Your task to perform on an android device: toggle translation in the chrome app Image 0: 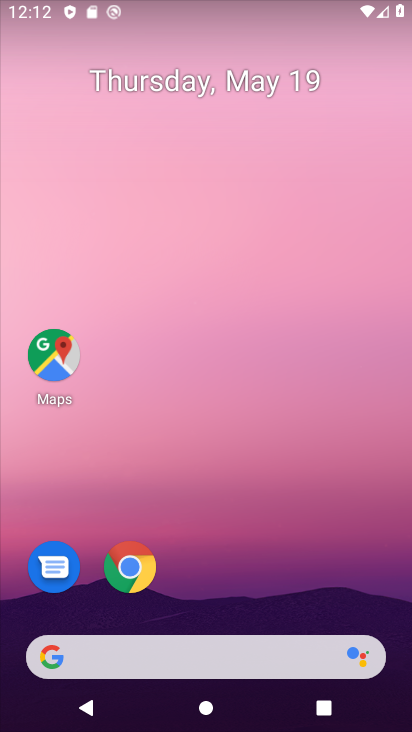
Step 0: click (137, 572)
Your task to perform on an android device: toggle translation in the chrome app Image 1: 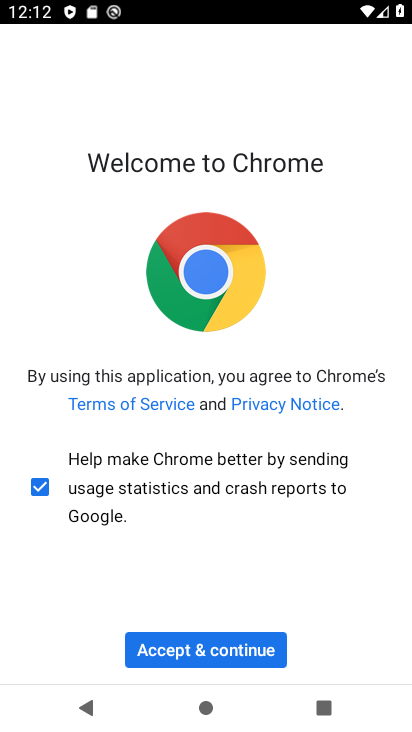
Step 1: click (248, 648)
Your task to perform on an android device: toggle translation in the chrome app Image 2: 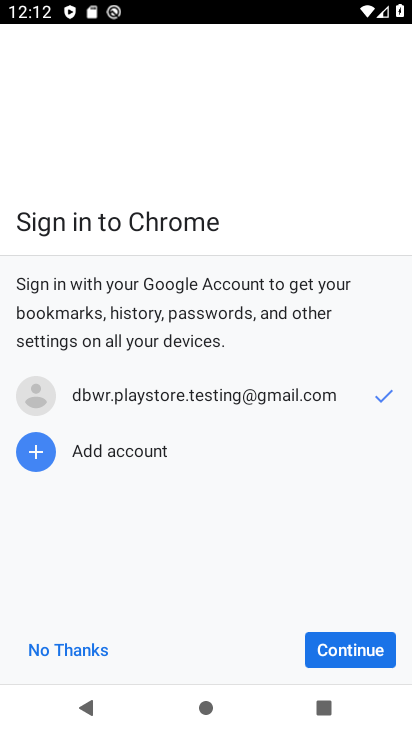
Step 2: click (352, 645)
Your task to perform on an android device: toggle translation in the chrome app Image 3: 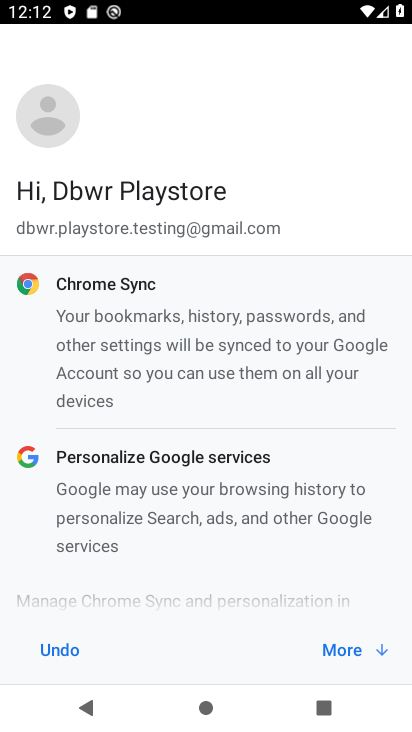
Step 3: click (352, 645)
Your task to perform on an android device: toggle translation in the chrome app Image 4: 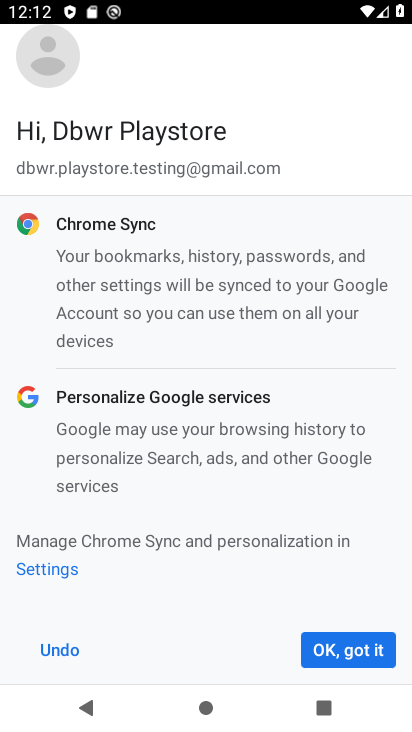
Step 4: click (352, 645)
Your task to perform on an android device: toggle translation in the chrome app Image 5: 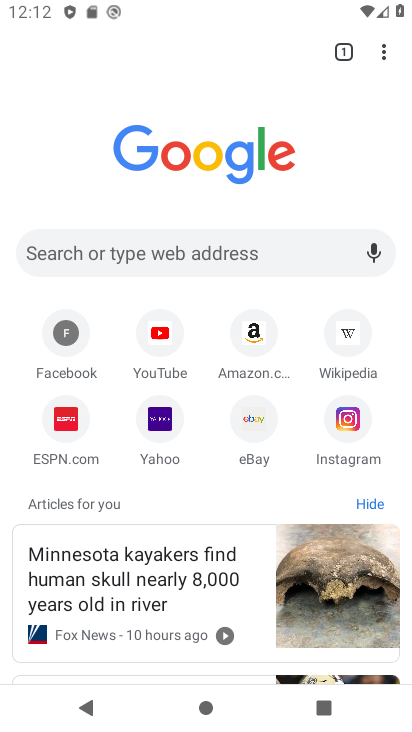
Step 5: click (385, 50)
Your task to perform on an android device: toggle translation in the chrome app Image 6: 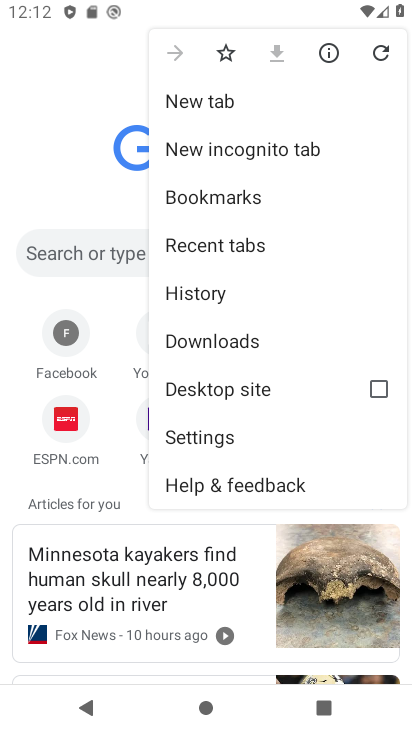
Step 6: click (216, 446)
Your task to perform on an android device: toggle translation in the chrome app Image 7: 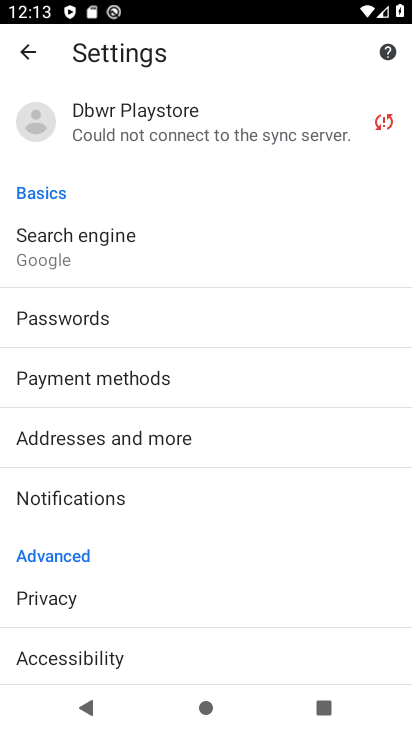
Step 7: drag from (211, 519) to (253, 215)
Your task to perform on an android device: toggle translation in the chrome app Image 8: 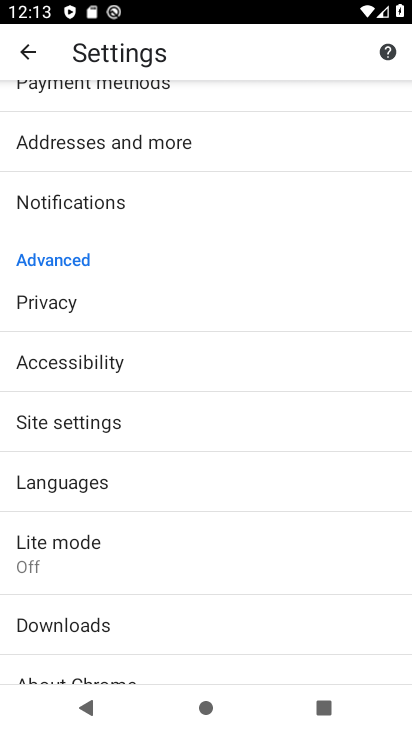
Step 8: click (187, 493)
Your task to perform on an android device: toggle translation in the chrome app Image 9: 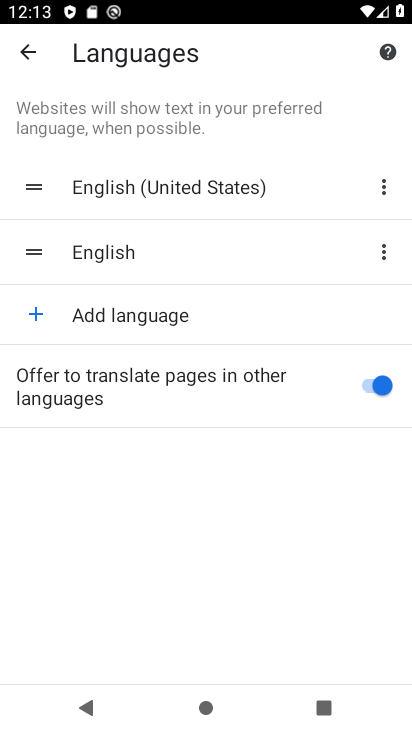
Step 9: click (366, 383)
Your task to perform on an android device: toggle translation in the chrome app Image 10: 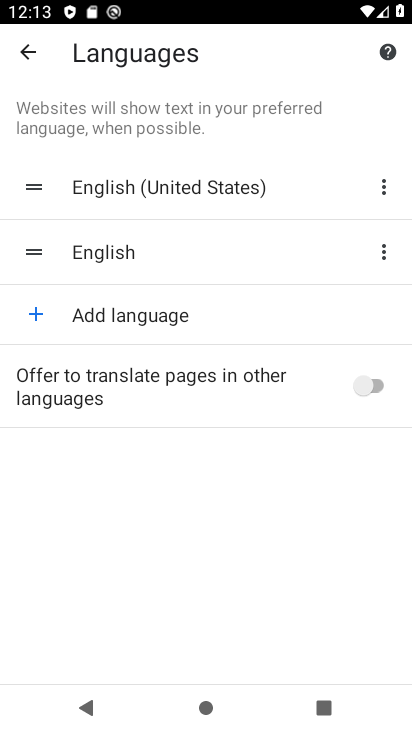
Step 10: task complete